Your task to perform on an android device: What's the news in French Guiana? Image 0: 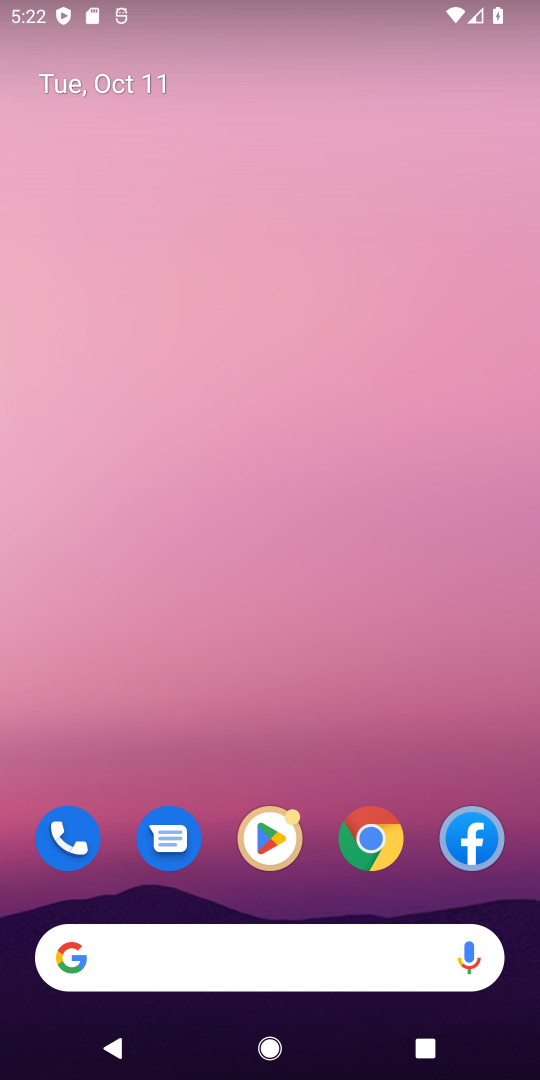
Step 0: click (363, 841)
Your task to perform on an android device: What's the news in French Guiana? Image 1: 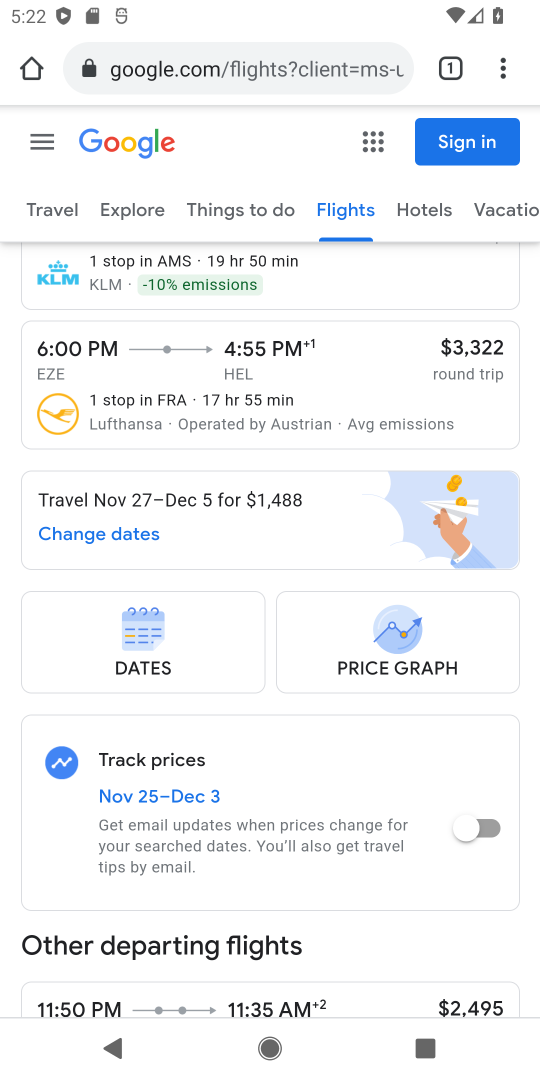
Step 1: click (290, 60)
Your task to perform on an android device: What's the news in French Guiana? Image 2: 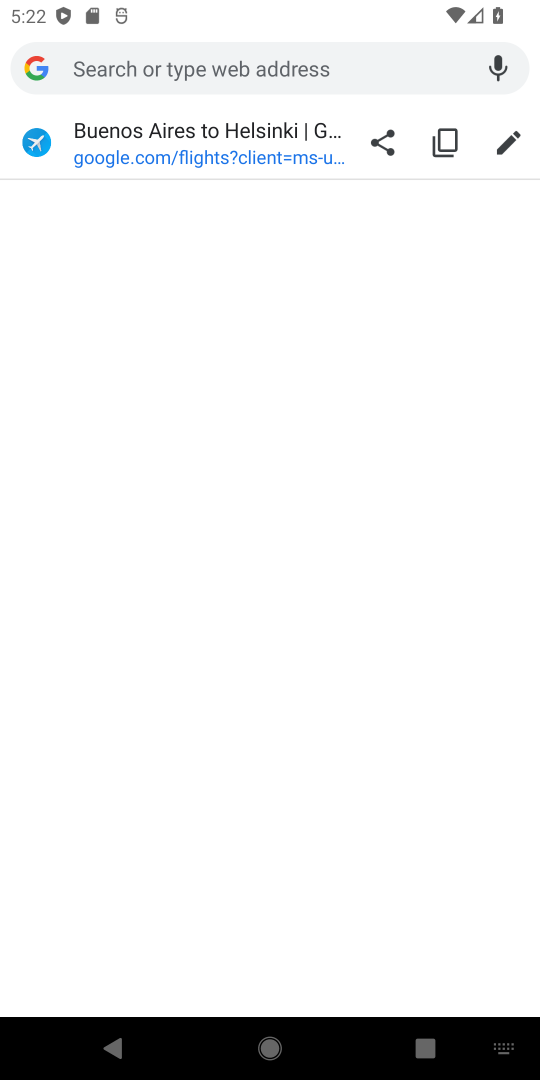
Step 2: type "French Guiana"
Your task to perform on an android device: What's the news in French Guiana? Image 3: 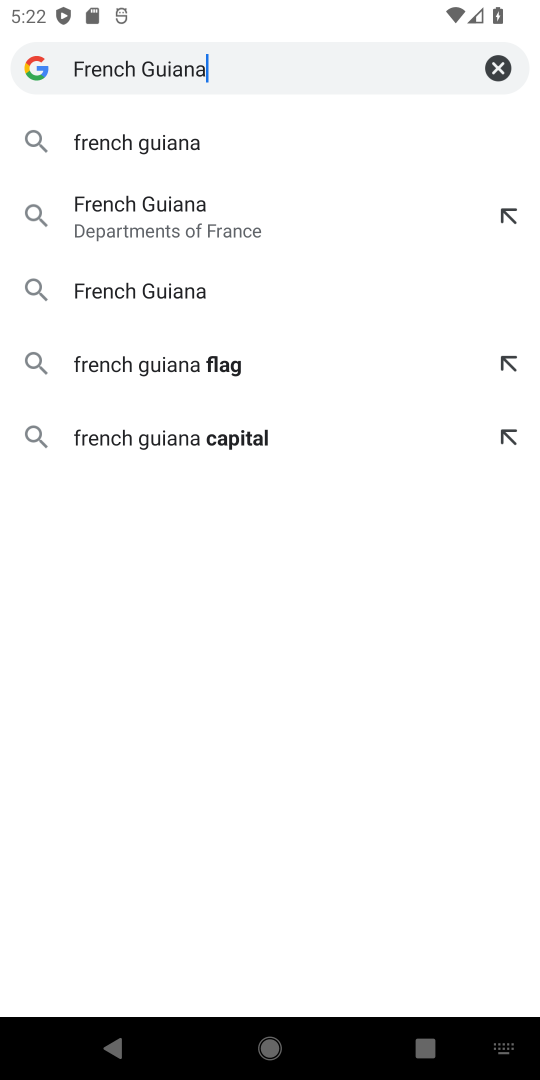
Step 3: press enter
Your task to perform on an android device: What's the news in French Guiana? Image 4: 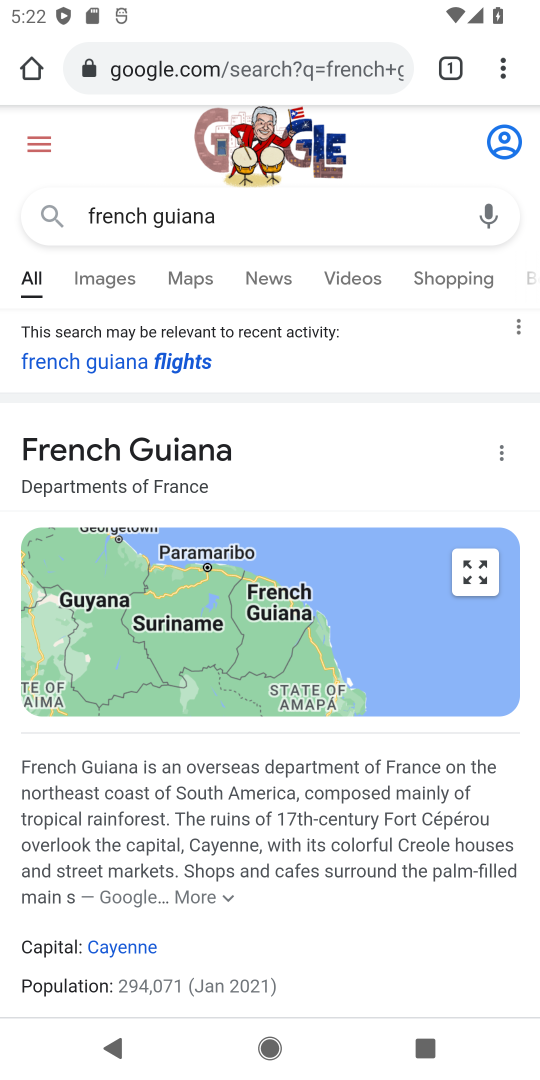
Step 4: click (276, 277)
Your task to perform on an android device: What's the news in French Guiana? Image 5: 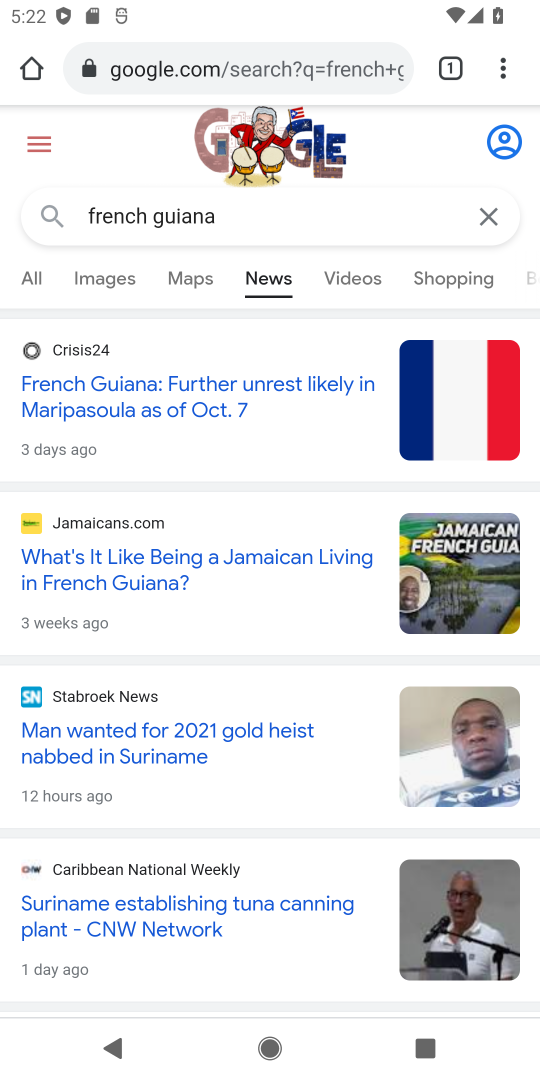
Step 5: task complete